Your task to perform on an android device: clear all cookies in the chrome app Image 0: 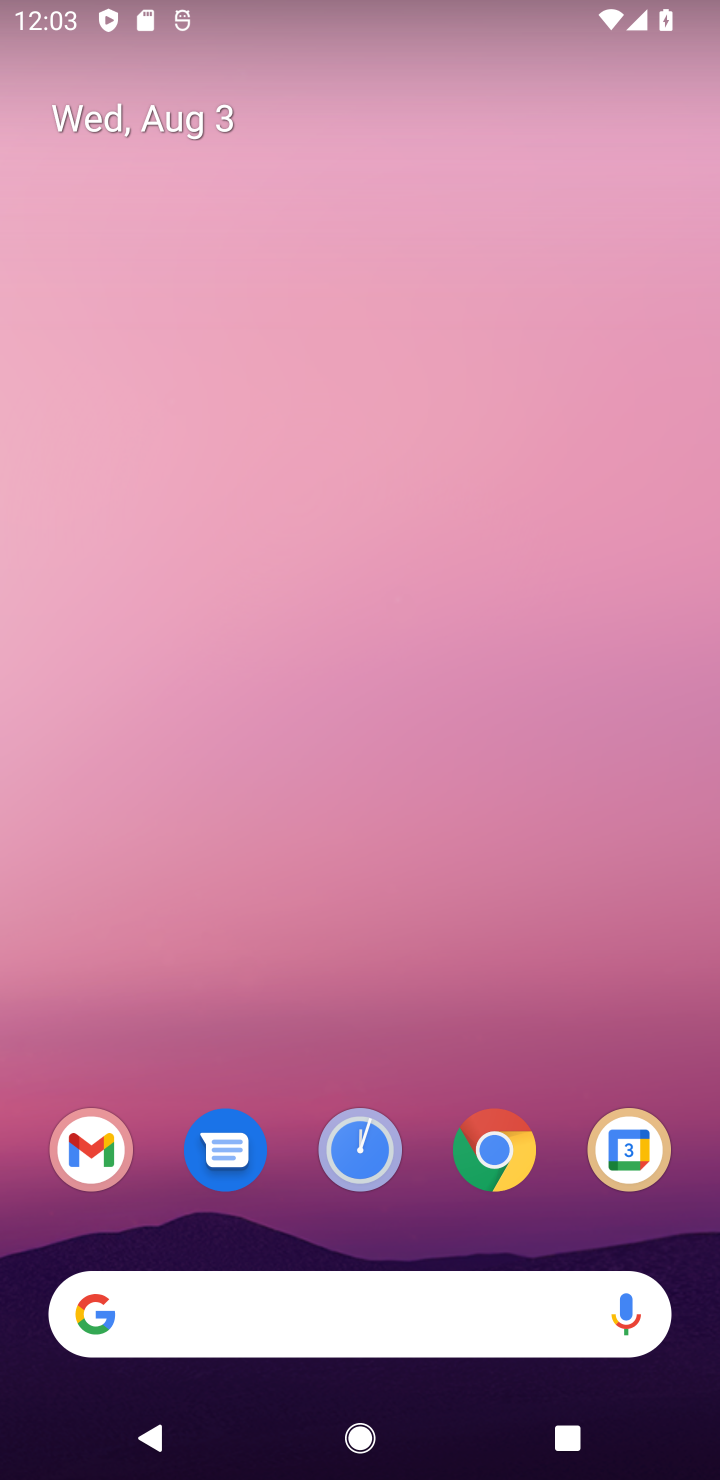
Step 0: press home button
Your task to perform on an android device: clear all cookies in the chrome app Image 1: 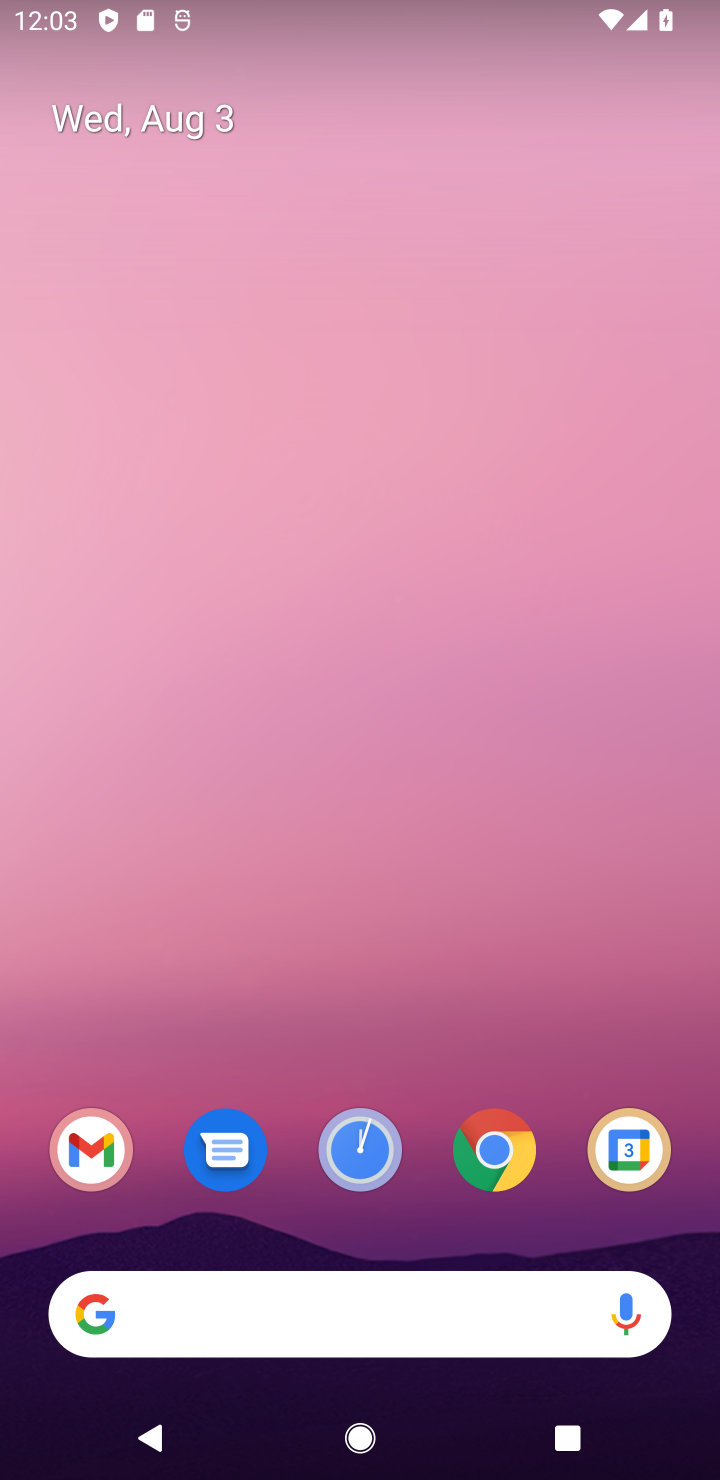
Step 1: drag from (424, 1084) to (407, 297)
Your task to perform on an android device: clear all cookies in the chrome app Image 2: 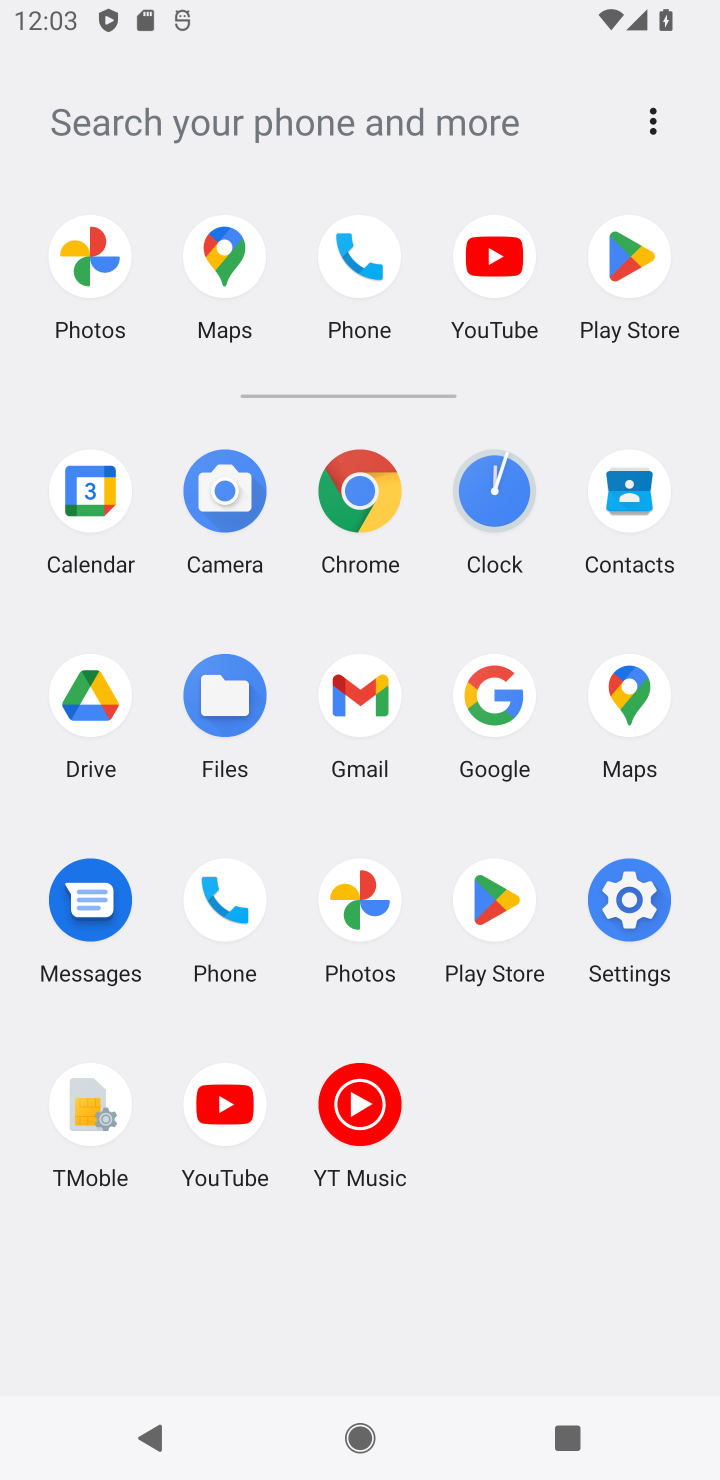
Step 2: click (362, 491)
Your task to perform on an android device: clear all cookies in the chrome app Image 3: 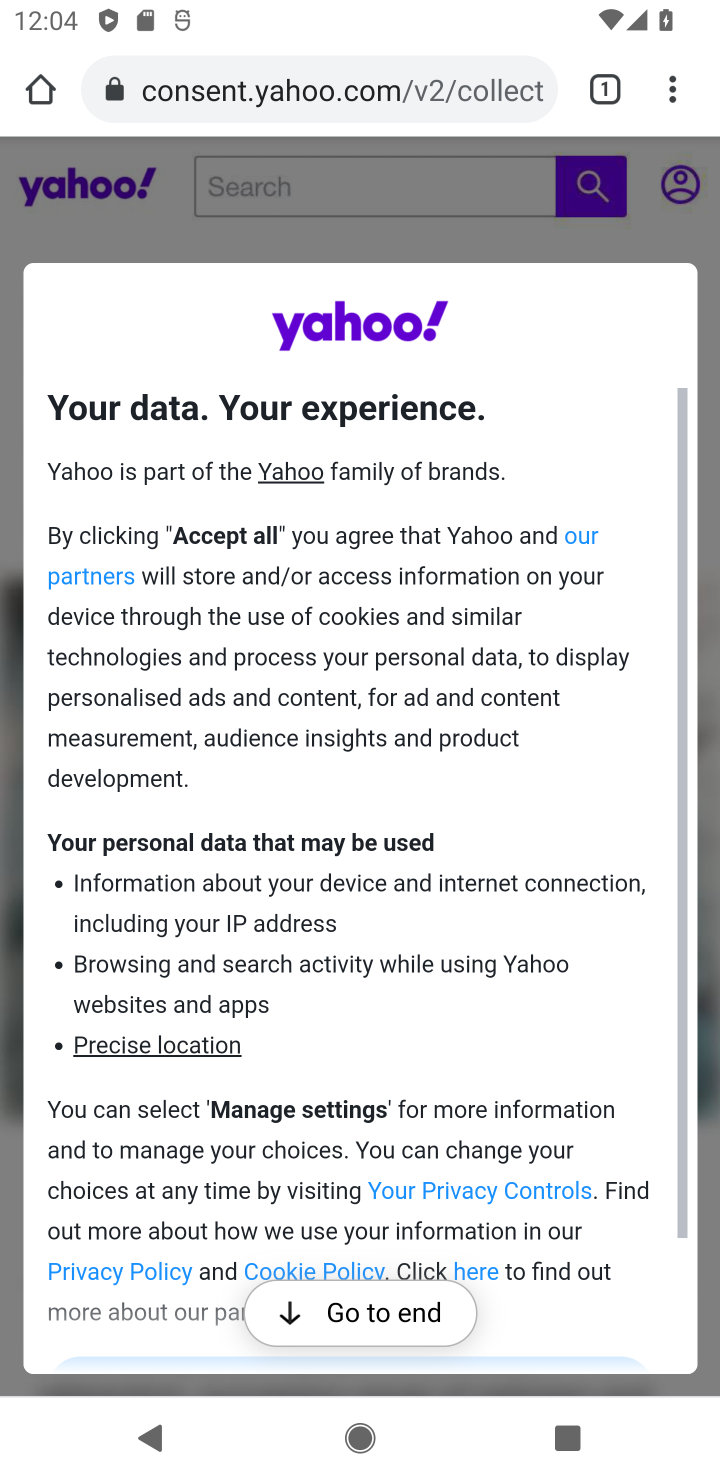
Step 3: click (676, 90)
Your task to perform on an android device: clear all cookies in the chrome app Image 4: 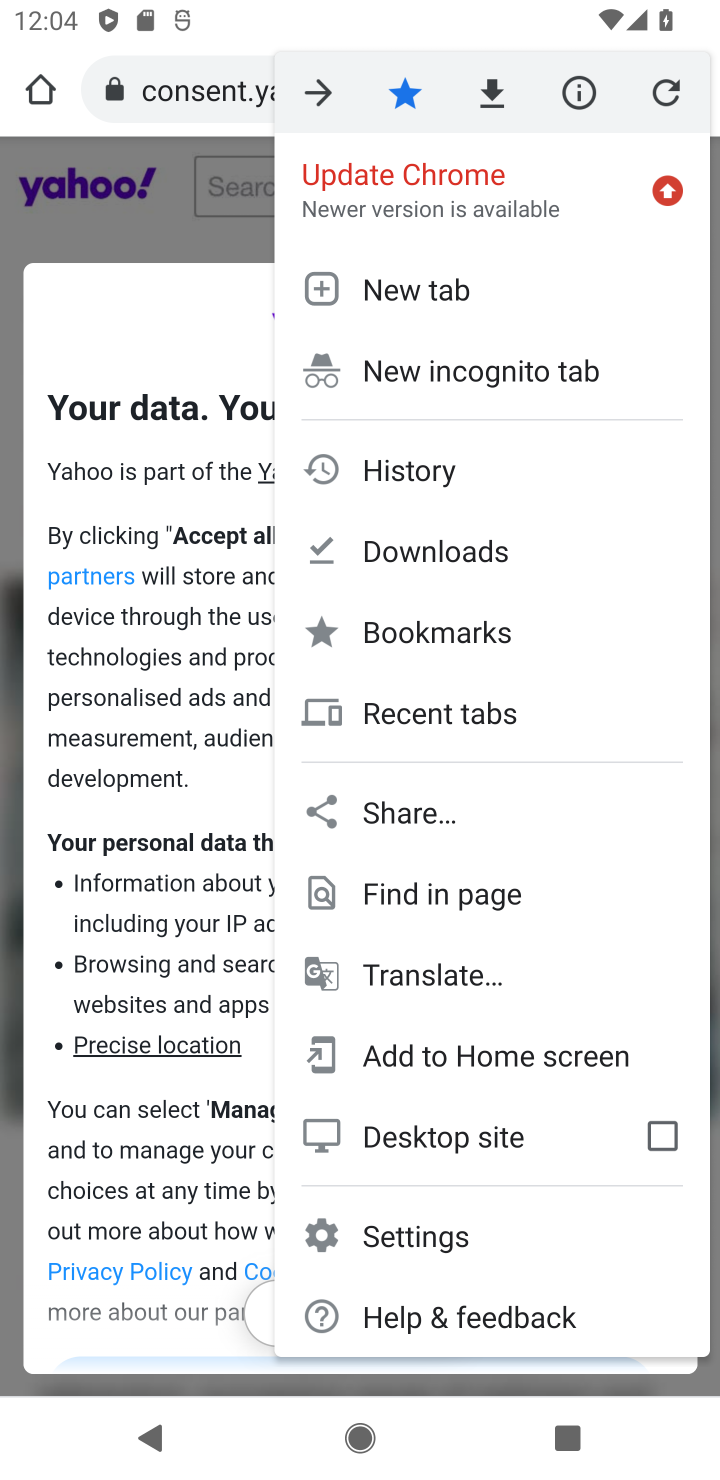
Step 4: drag from (609, 914) to (618, 626)
Your task to perform on an android device: clear all cookies in the chrome app Image 5: 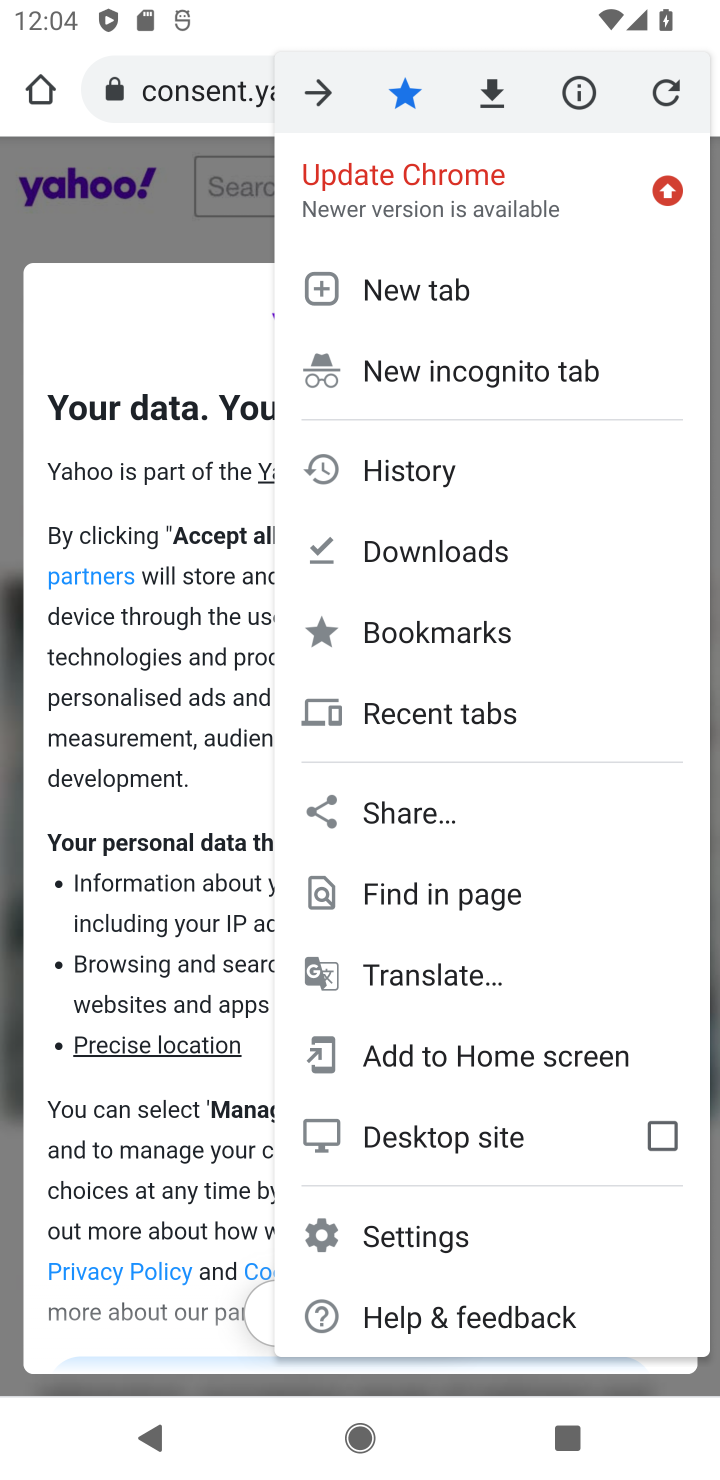
Step 5: click (453, 1231)
Your task to perform on an android device: clear all cookies in the chrome app Image 6: 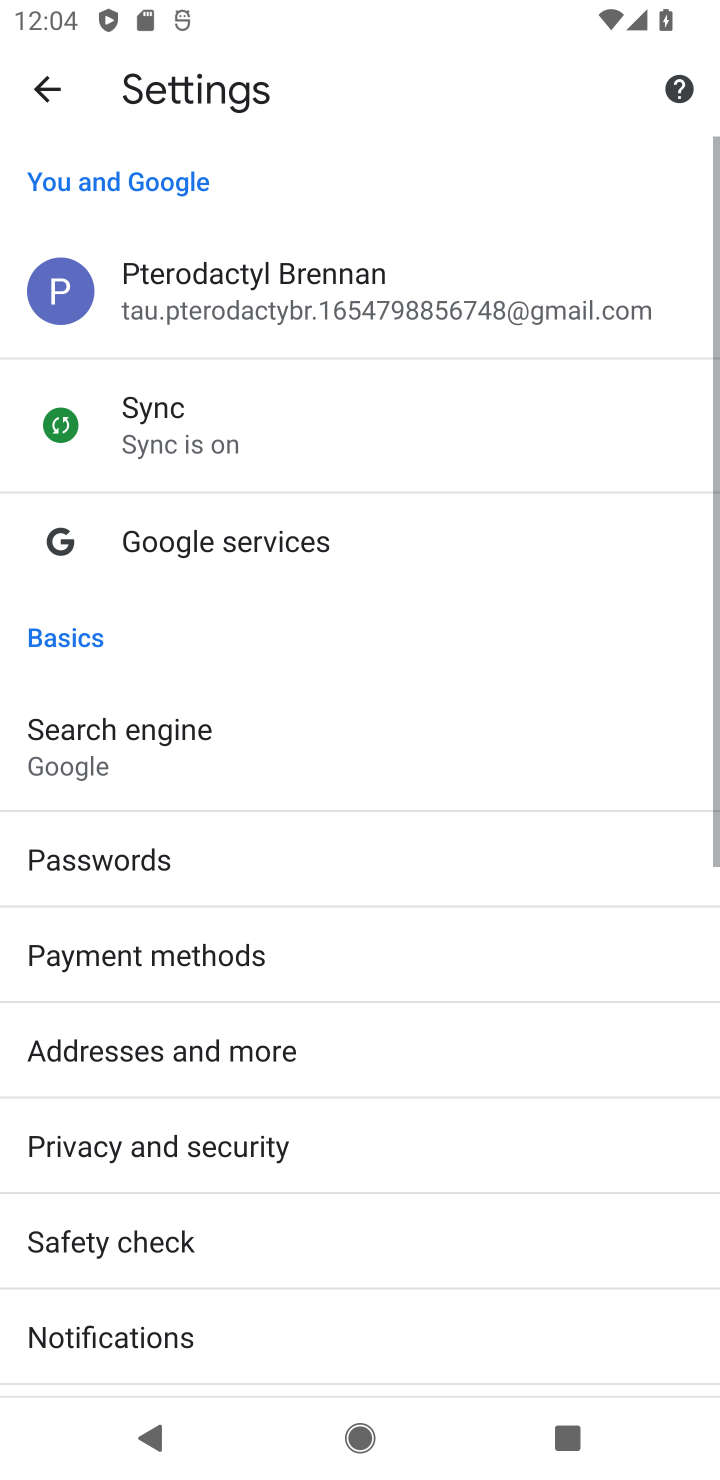
Step 6: drag from (482, 1128) to (493, 894)
Your task to perform on an android device: clear all cookies in the chrome app Image 7: 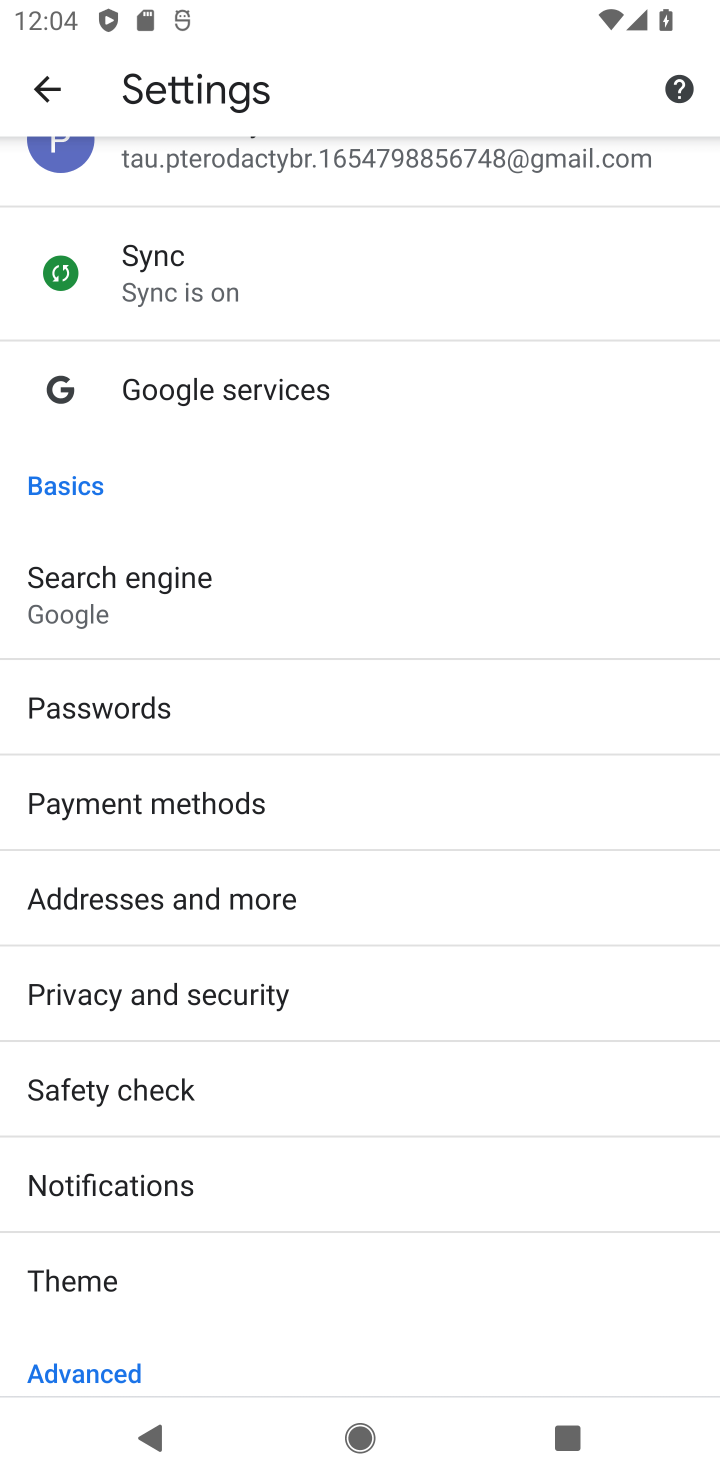
Step 7: drag from (487, 1143) to (470, 827)
Your task to perform on an android device: clear all cookies in the chrome app Image 8: 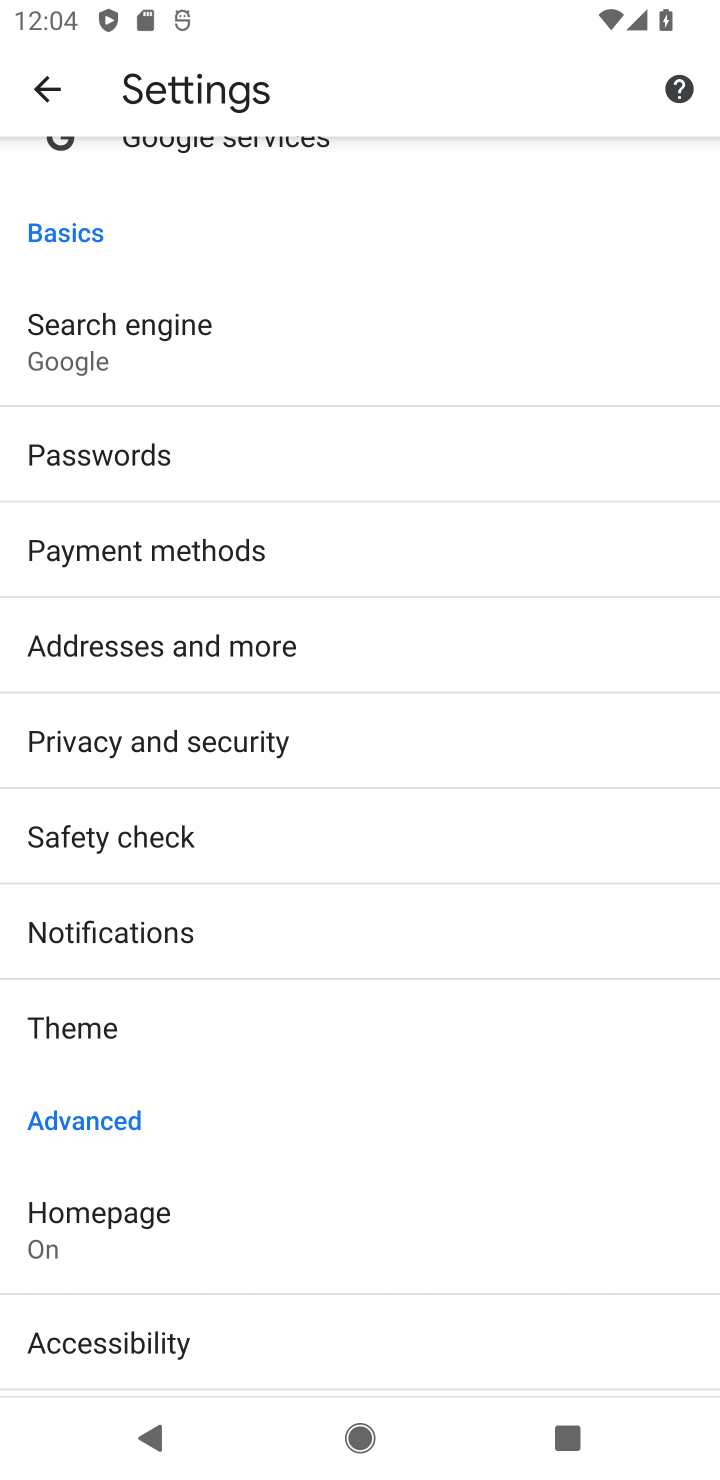
Step 8: drag from (500, 1102) to (520, 794)
Your task to perform on an android device: clear all cookies in the chrome app Image 9: 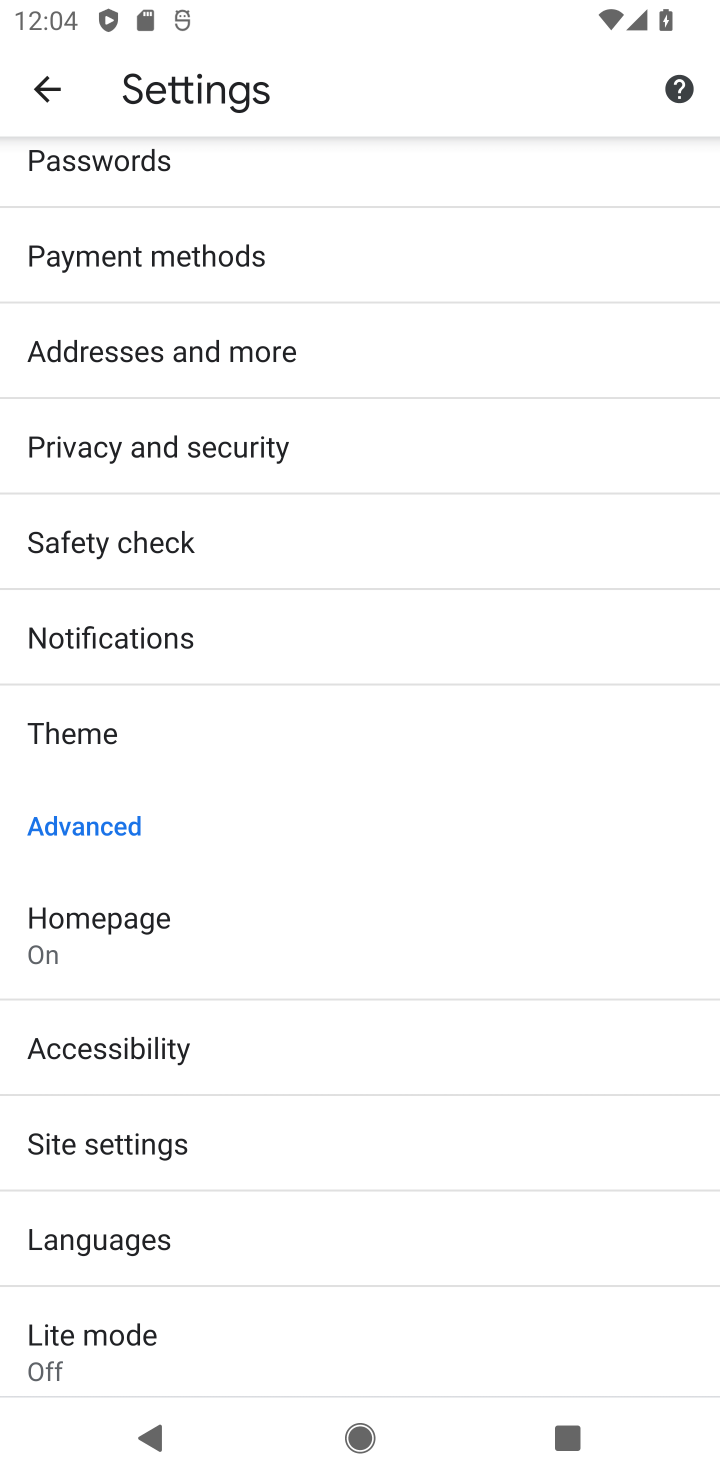
Step 9: drag from (509, 1157) to (520, 904)
Your task to perform on an android device: clear all cookies in the chrome app Image 10: 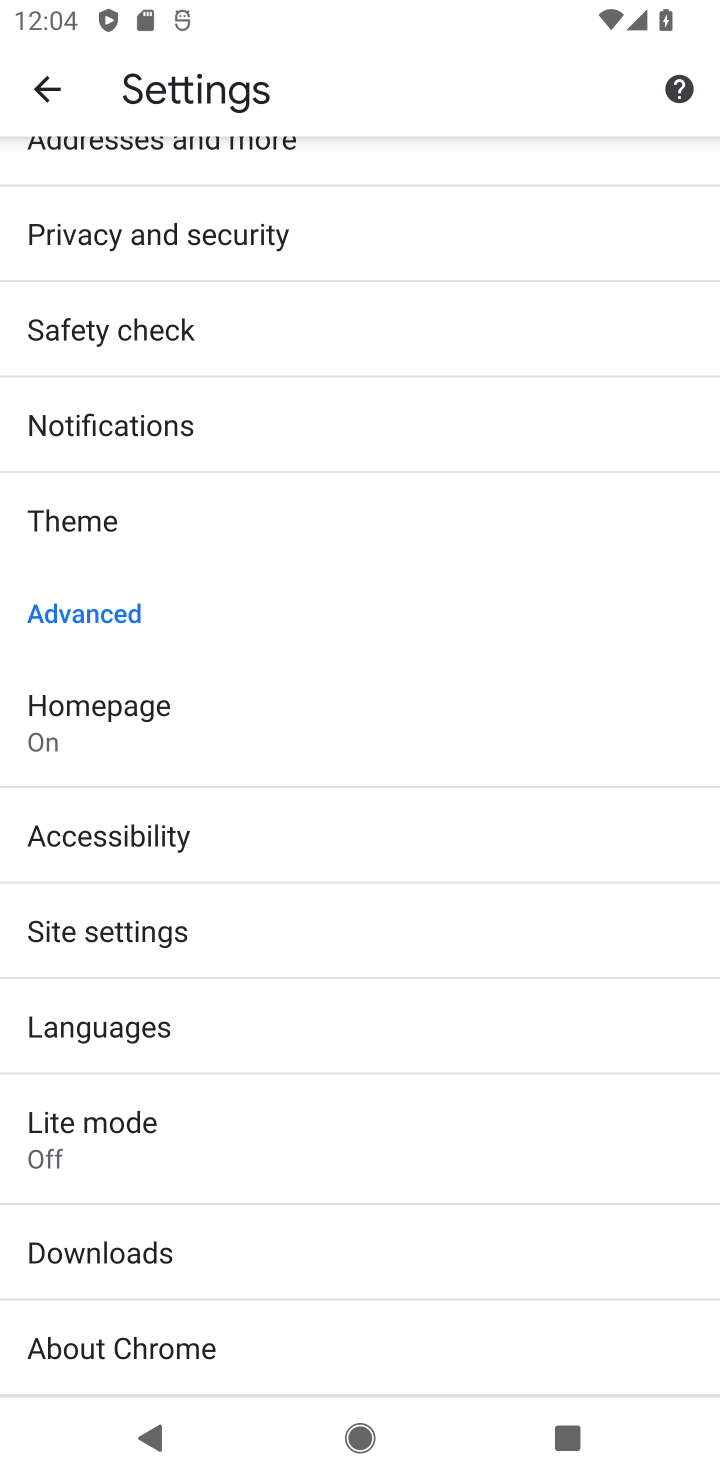
Step 10: drag from (475, 610) to (471, 859)
Your task to perform on an android device: clear all cookies in the chrome app Image 11: 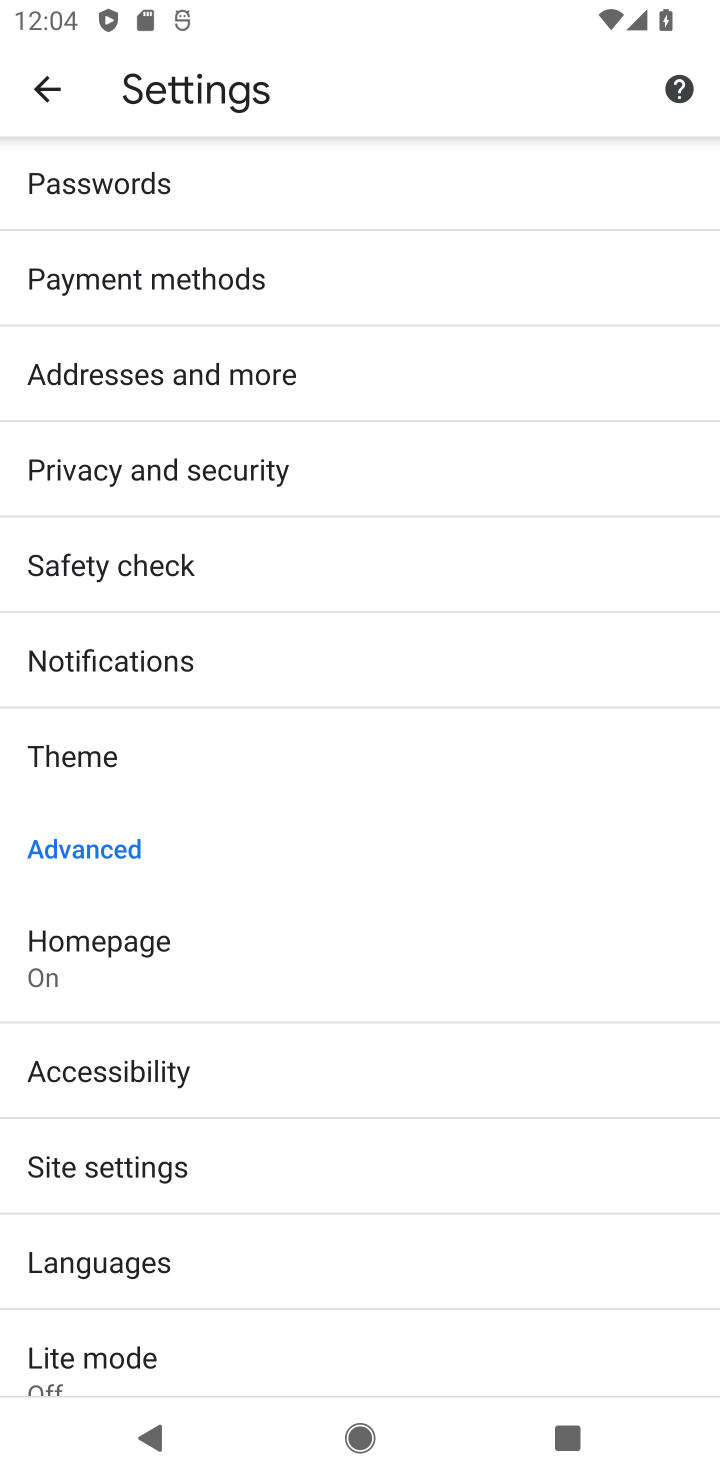
Step 11: drag from (465, 497) to (471, 904)
Your task to perform on an android device: clear all cookies in the chrome app Image 12: 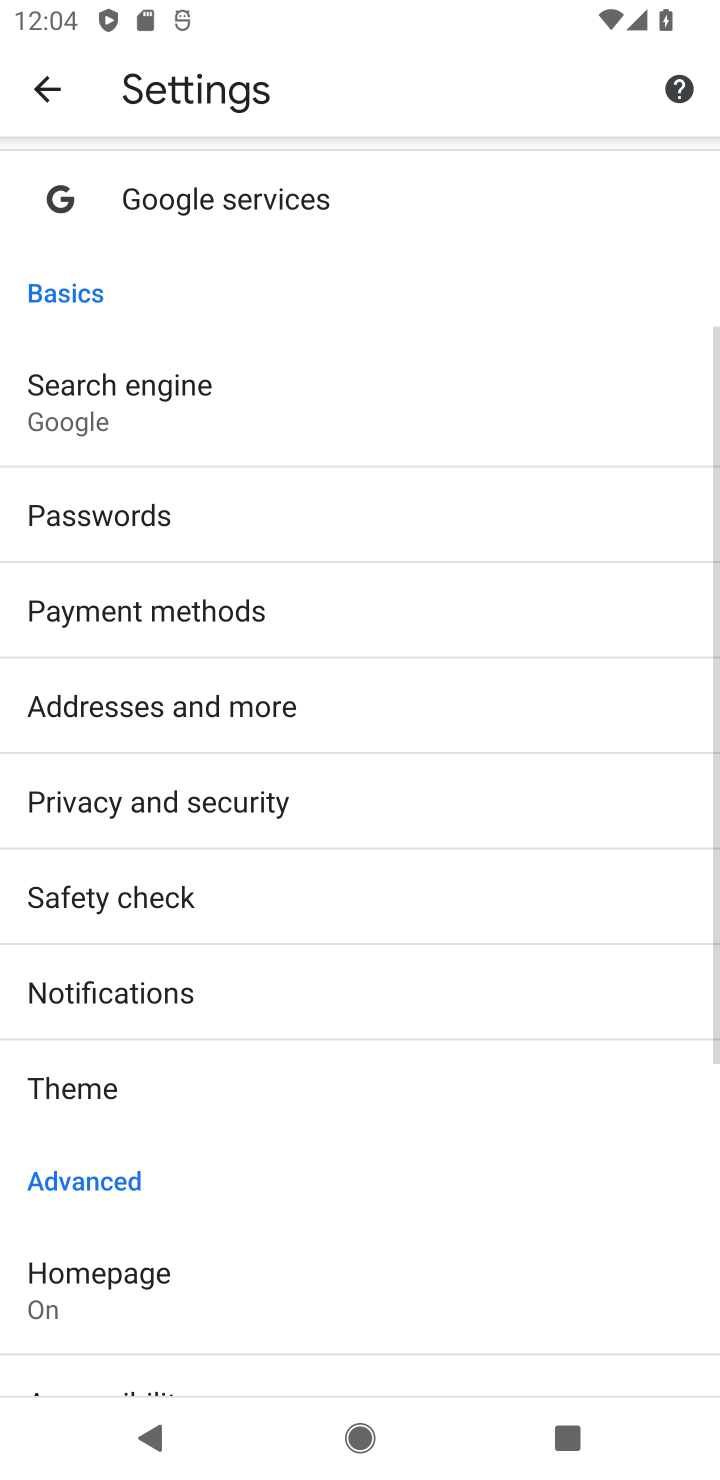
Step 12: click (441, 812)
Your task to perform on an android device: clear all cookies in the chrome app Image 13: 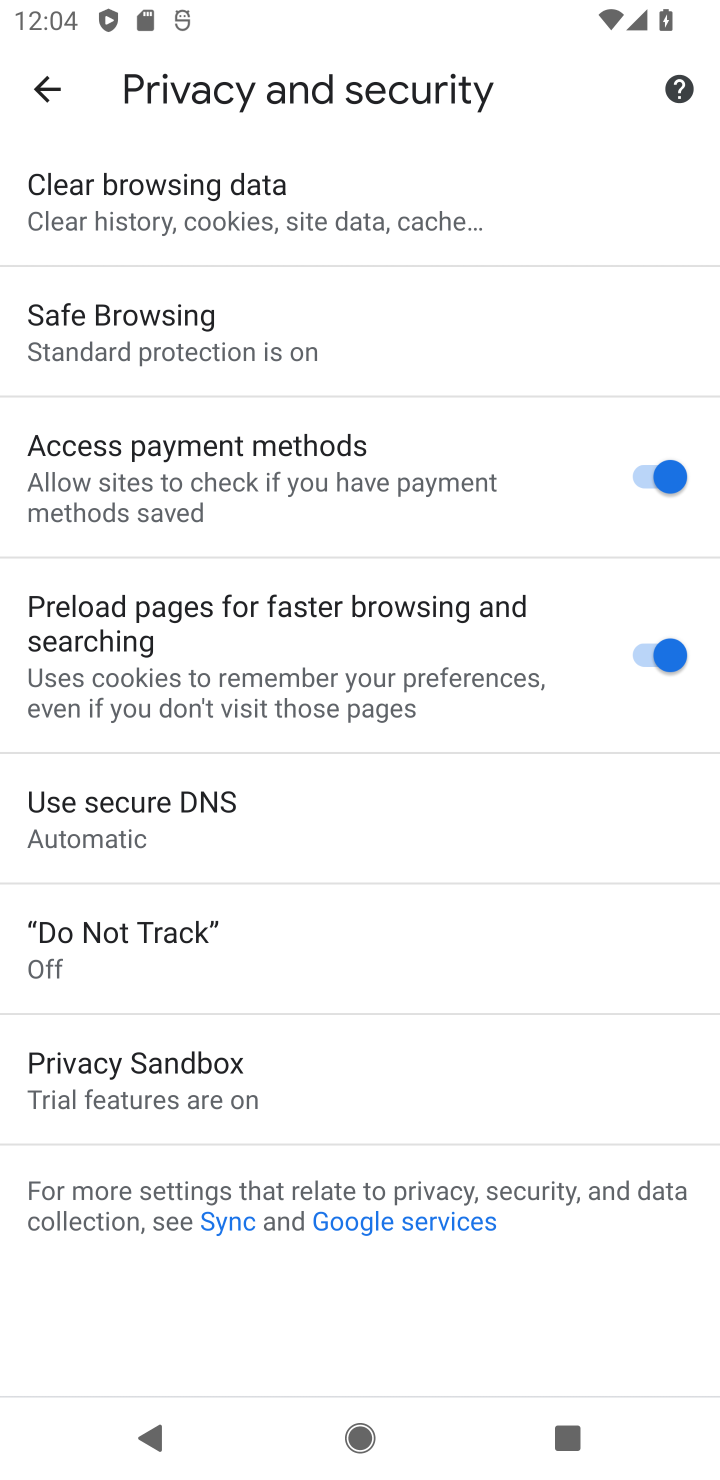
Step 13: click (249, 200)
Your task to perform on an android device: clear all cookies in the chrome app Image 14: 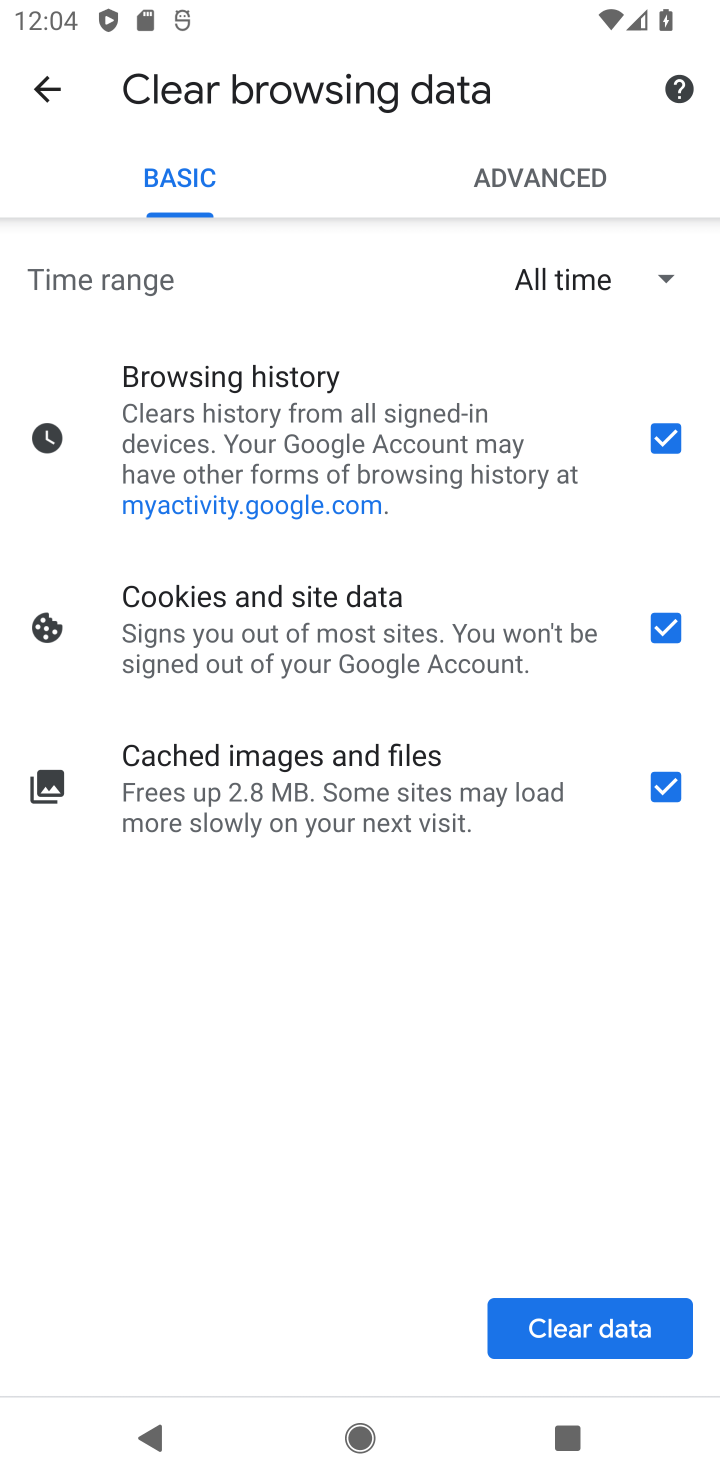
Step 14: click (579, 1339)
Your task to perform on an android device: clear all cookies in the chrome app Image 15: 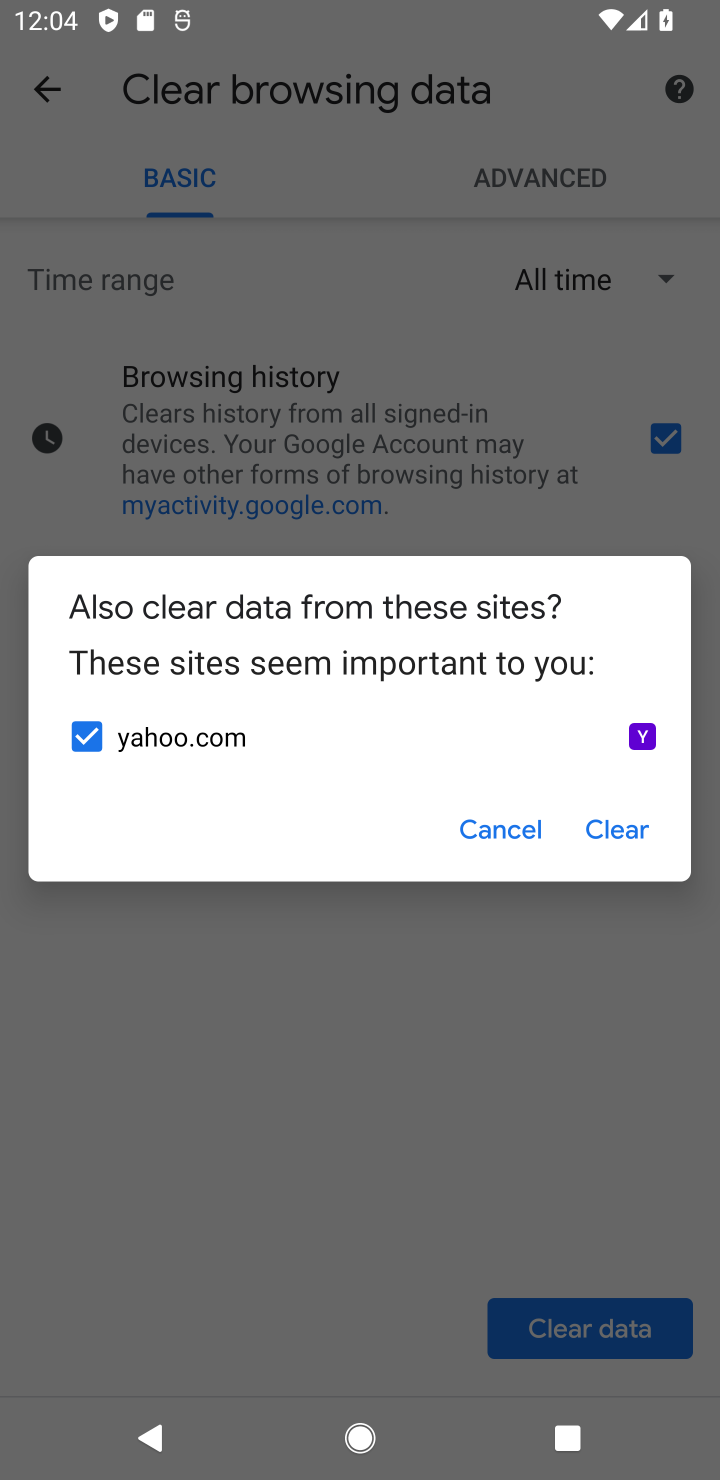
Step 15: click (607, 832)
Your task to perform on an android device: clear all cookies in the chrome app Image 16: 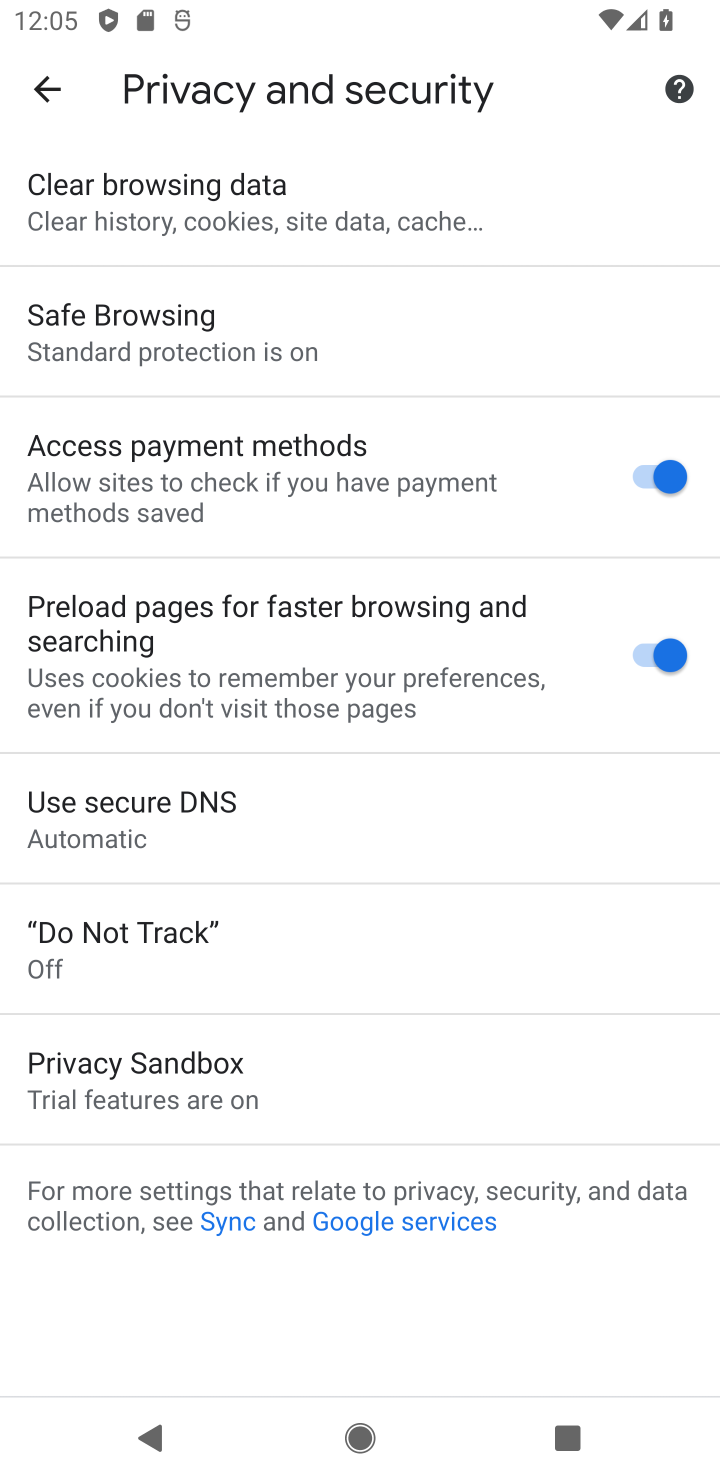
Step 16: task complete